Your task to perform on an android device: open wifi settings Image 0: 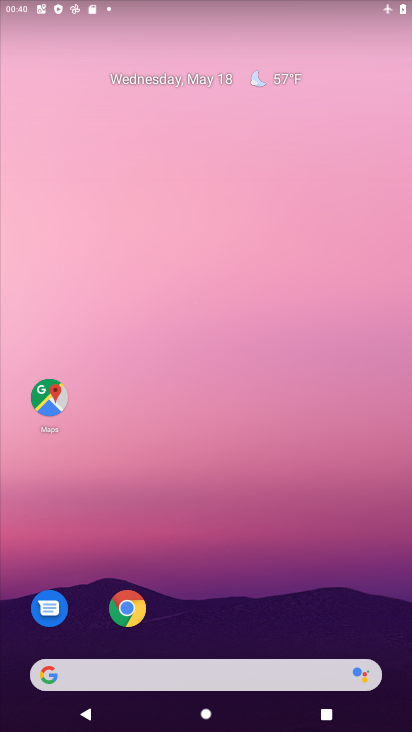
Step 0: drag from (221, 499) to (155, 92)
Your task to perform on an android device: open wifi settings Image 1: 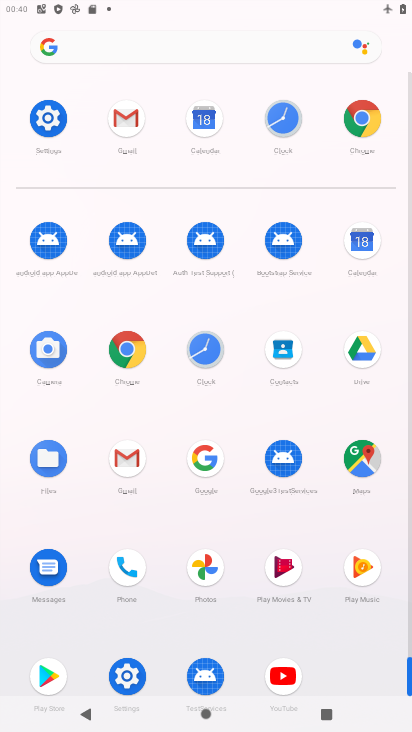
Step 1: click (45, 121)
Your task to perform on an android device: open wifi settings Image 2: 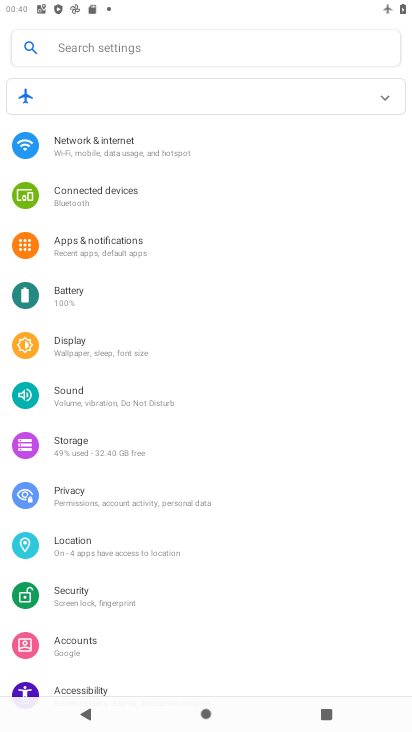
Step 2: click (83, 141)
Your task to perform on an android device: open wifi settings Image 3: 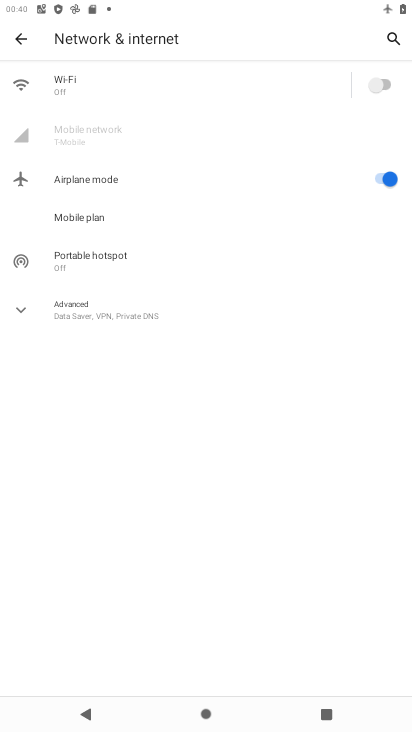
Step 3: click (64, 84)
Your task to perform on an android device: open wifi settings Image 4: 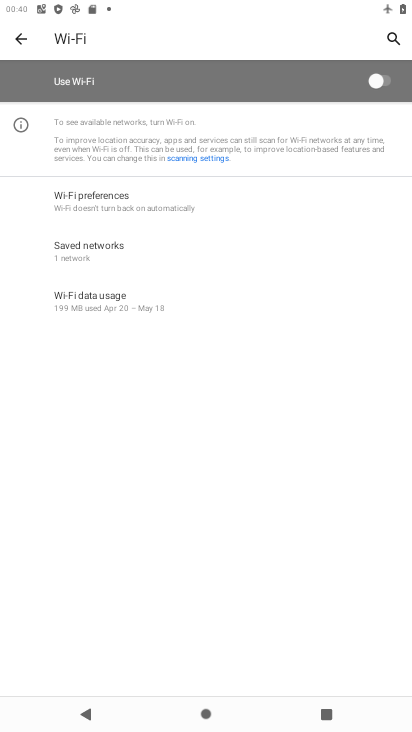
Step 4: task complete